Your task to perform on an android device: see sites visited before in the chrome app Image 0: 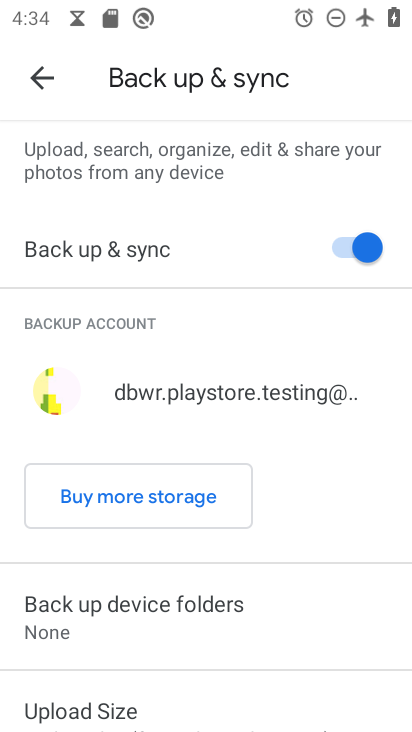
Step 0: press home button
Your task to perform on an android device: see sites visited before in the chrome app Image 1: 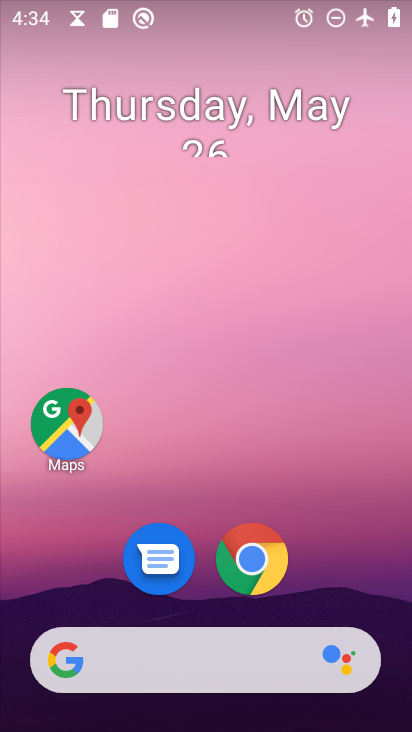
Step 1: click (263, 565)
Your task to perform on an android device: see sites visited before in the chrome app Image 2: 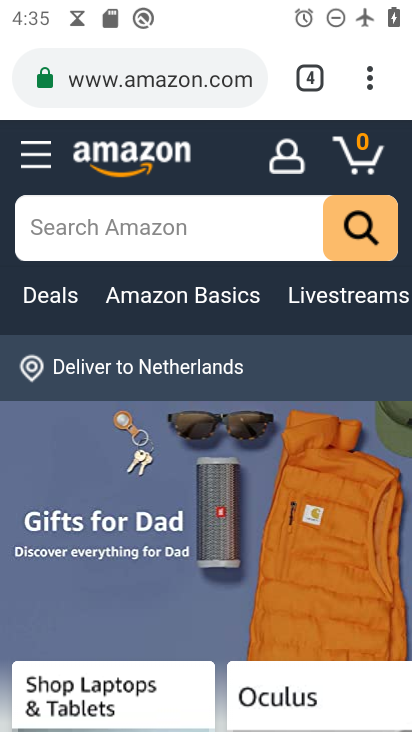
Step 2: click (377, 79)
Your task to perform on an android device: see sites visited before in the chrome app Image 3: 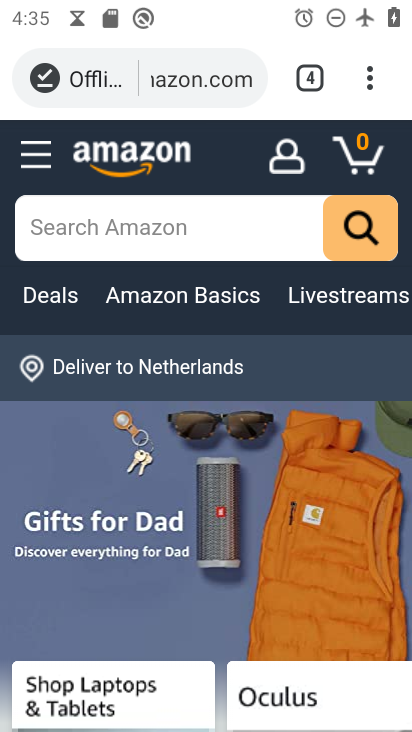
Step 3: click (367, 78)
Your task to perform on an android device: see sites visited before in the chrome app Image 4: 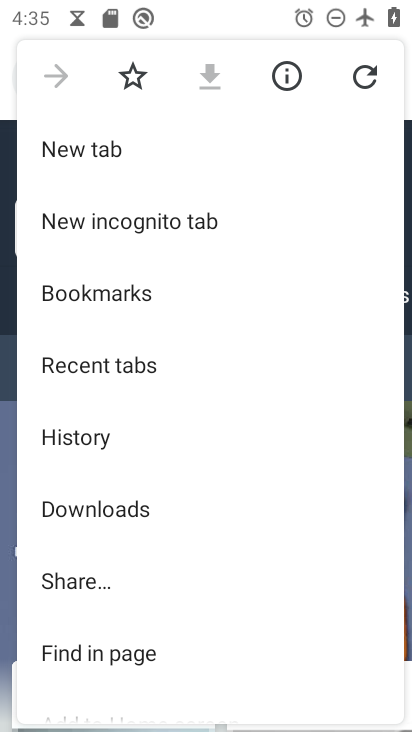
Step 4: drag from (246, 590) to (192, 130)
Your task to perform on an android device: see sites visited before in the chrome app Image 5: 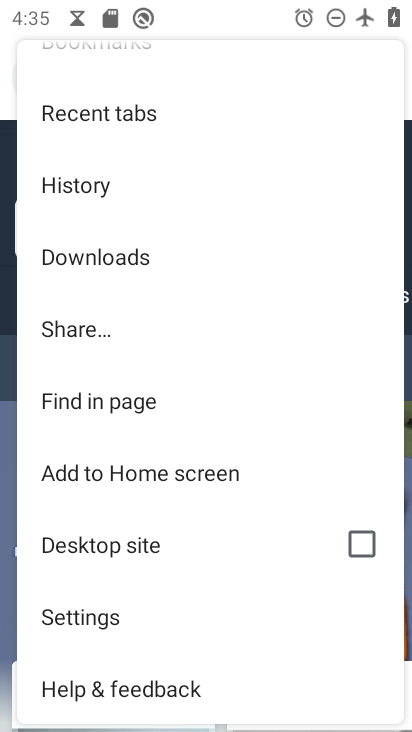
Step 5: click (133, 191)
Your task to perform on an android device: see sites visited before in the chrome app Image 6: 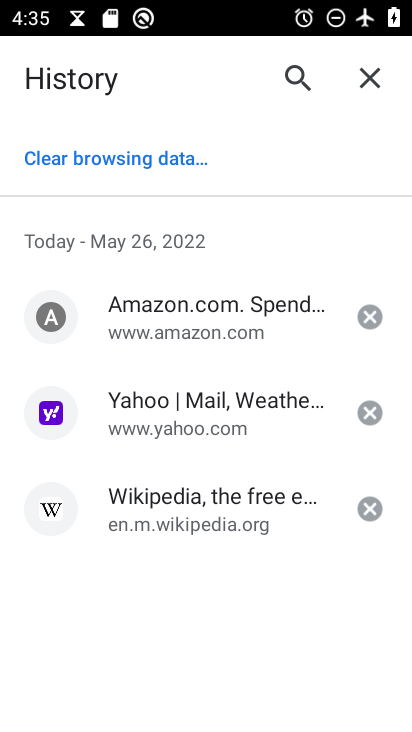
Step 6: task complete